Your task to perform on an android device: Check the news Image 0: 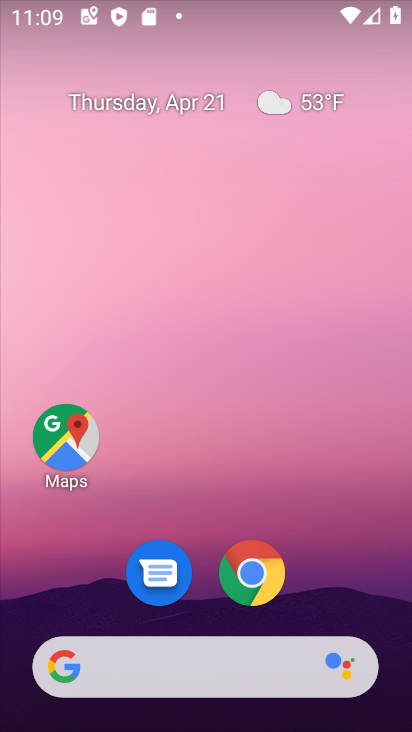
Step 0: drag from (340, 597) to (344, 111)
Your task to perform on an android device: Check the news Image 1: 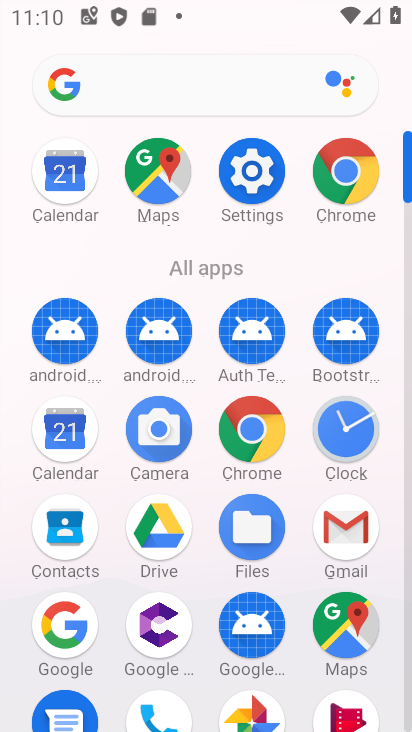
Step 1: click (252, 439)
Your task to perform on an android device: Check the news Image 2: 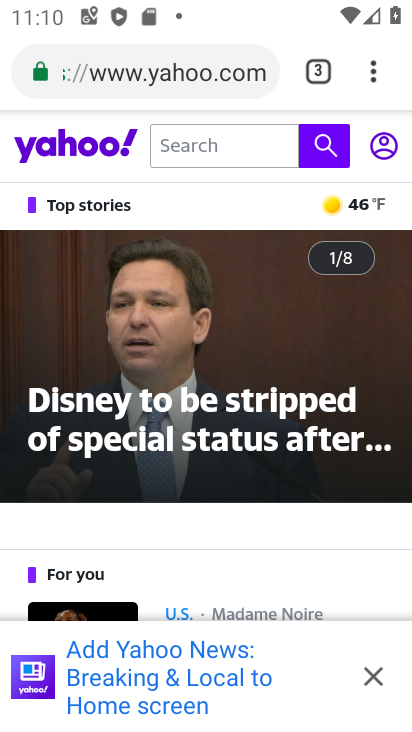
Step 2: click (247, 66)
Your task to perform on an android device: Check the news Image 3: 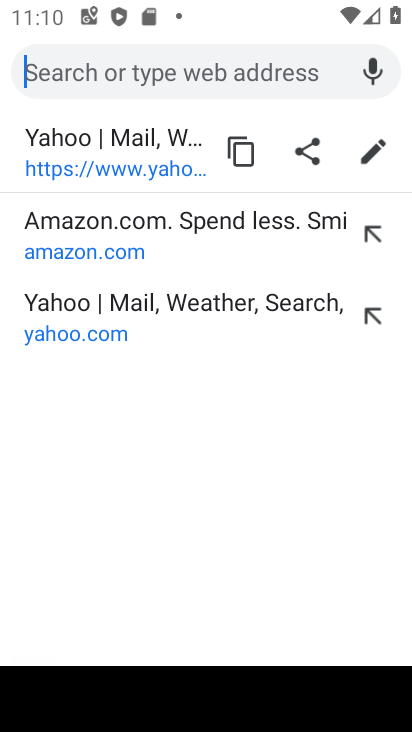
Step 3: type " news"
Your task to perform on an android device: Check the news Image 4: 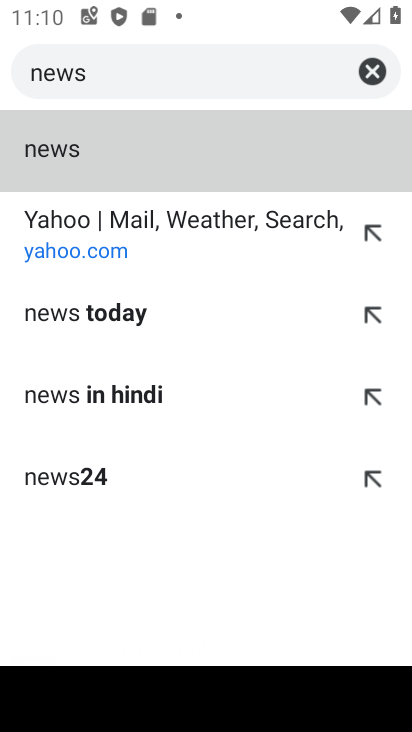
Step 4: click (32, 144)
Your task to perform on an android device: Check the news Image 5: 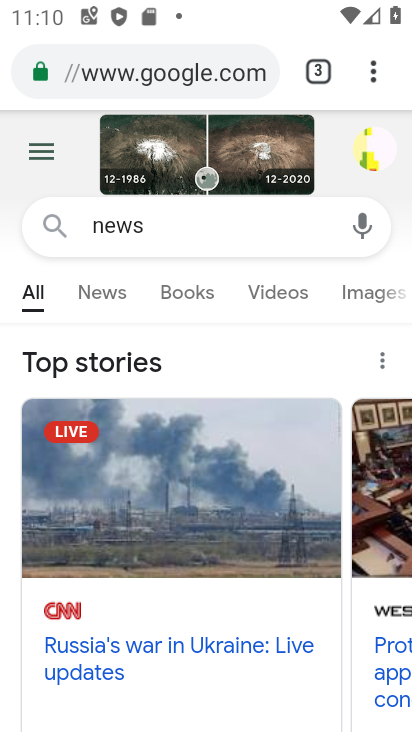
Step 5: click (117, 293)
Your task to perform on an android device: Check the news Image 6: 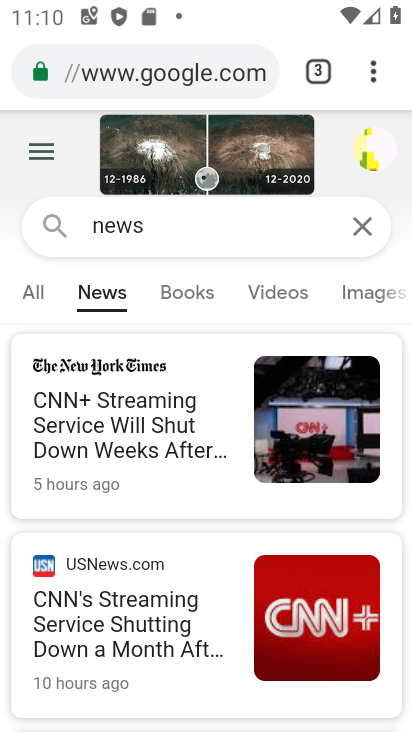
Step 6: task complete